Your task to perform on an android device: turn off data saver in the chrome app Image 0: 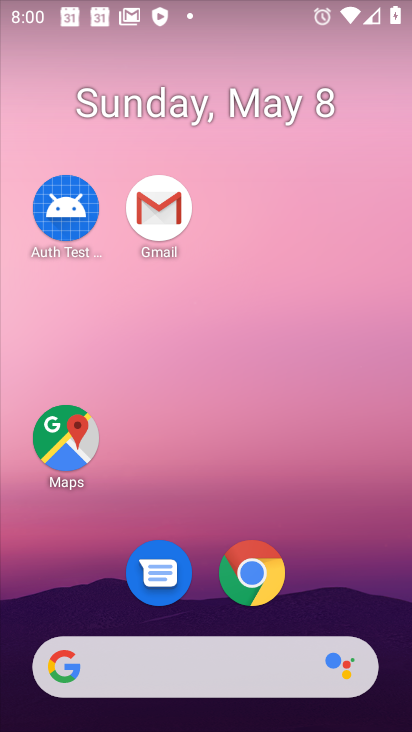
Step 0: drag from (338, 588) to (103, 42)
Your task to perform on an android device: turn off data saver in the chrome app Image 1: 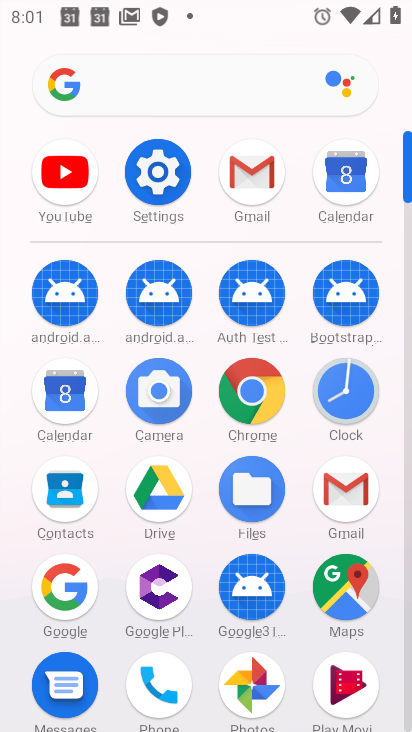
Step 1: click (238, 375)
Your task to perform on an android device: turn off data saver in the chrome app Image 2: 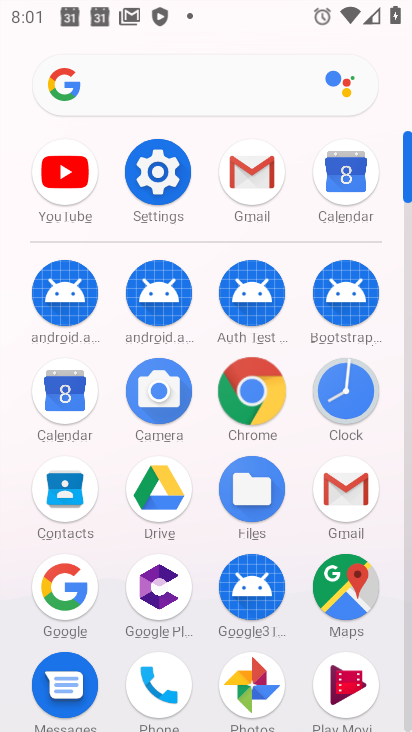
Step 2: click (239, 376)
Your task to perform on an android device: turn off data saver in the chrome app Image 3: 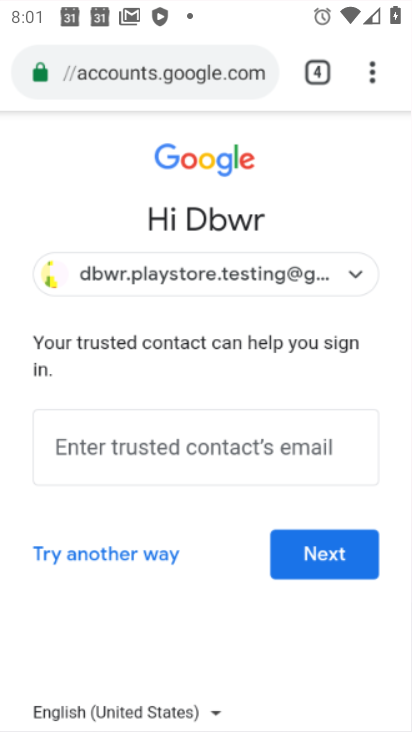
Step 3: click (241, 377)
Your task to perform on an android device: turn off data saver in the chrome app Image 4: 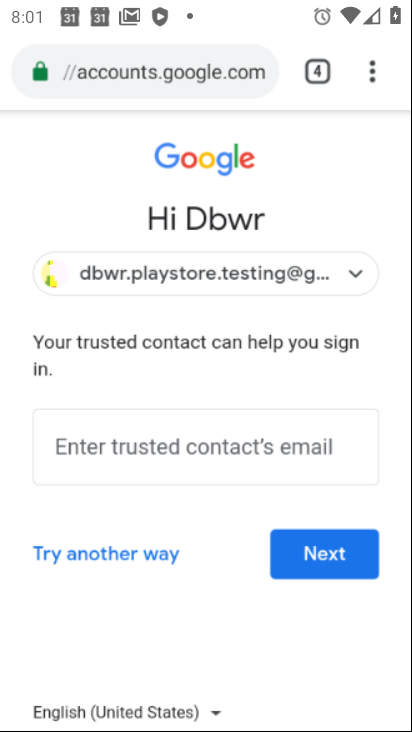
Step 4: click (241, 377)
Your task to perform on an android device: turn off data saver in the chrome app Image 5: 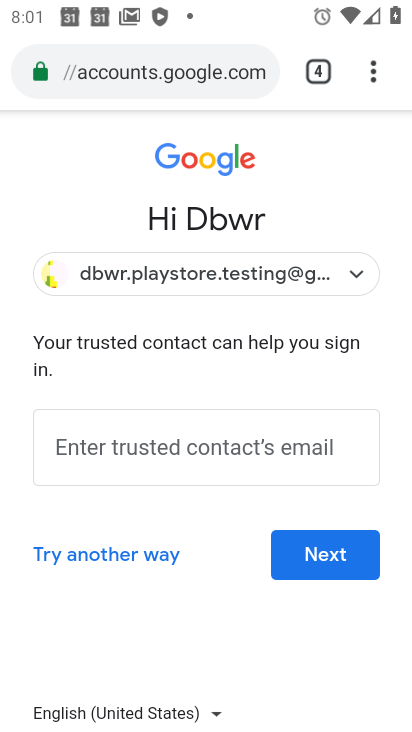
Step 5: click (320, 561)
Your task to perform on an android device: turn off data saver in the chrome app Image 6: 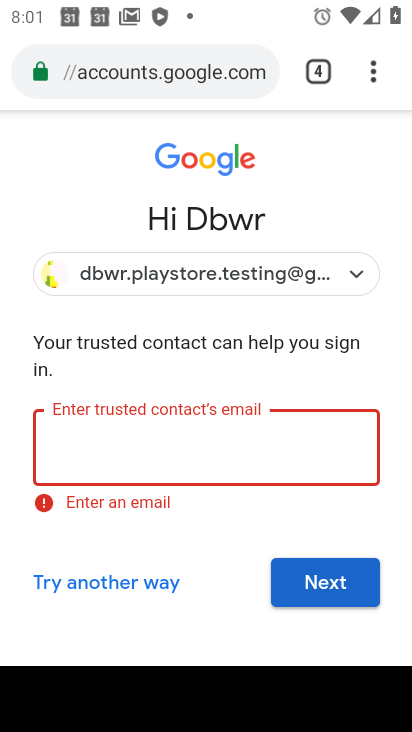
Step 6: press home button
Your task to perform on an android device: turn off data saver in the chrome app Image 7: 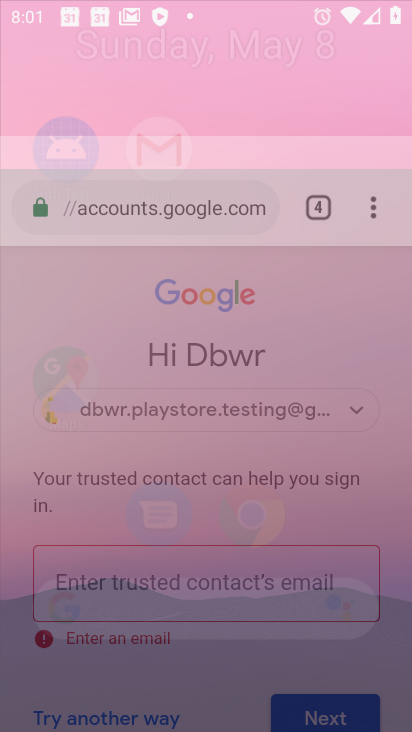
Step 7: press home button
Your task to perform on an android device: turn off data saver in the chrome app Image 8: 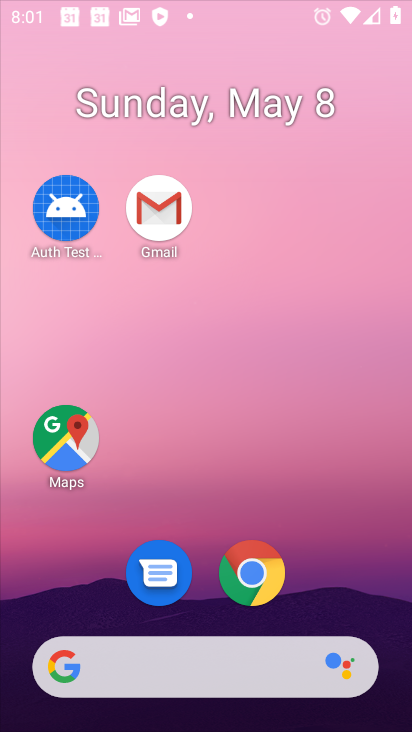
Step 8: press home button
Your task to perform on an android device: turn off data saver in the chrome app Image 9: 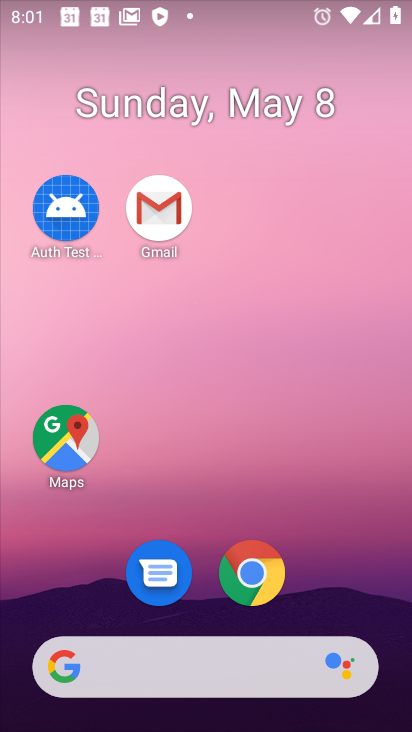
Step 9: click (259, 566)
Your task to perform on an android device: turn off data saver in the chrome app Image 10: 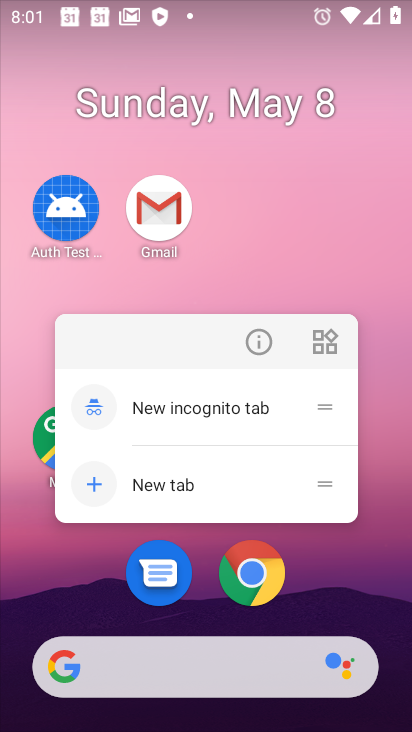
Step 10: click (189, 487)
Your task to perform on an android device: turn off data saver in the chrome app Image 11: 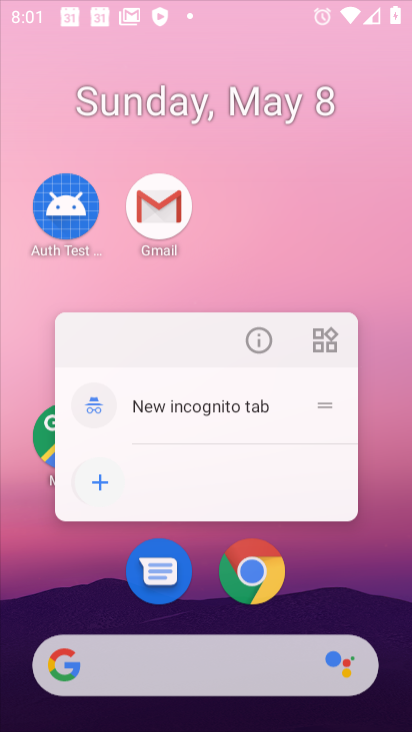
Step 11: click (188, 487)
Your task to perform on an android device: turn off data saver in the chrome app Image 12: 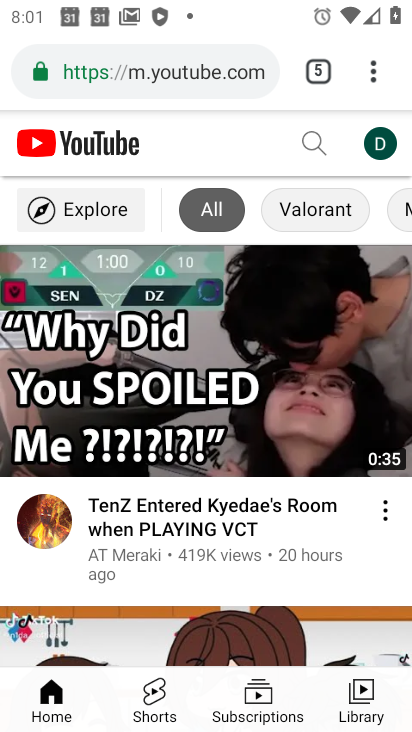
Step 12: press home button
Your task to perform on an android device: turn off data saver in the chrome app Image 13: 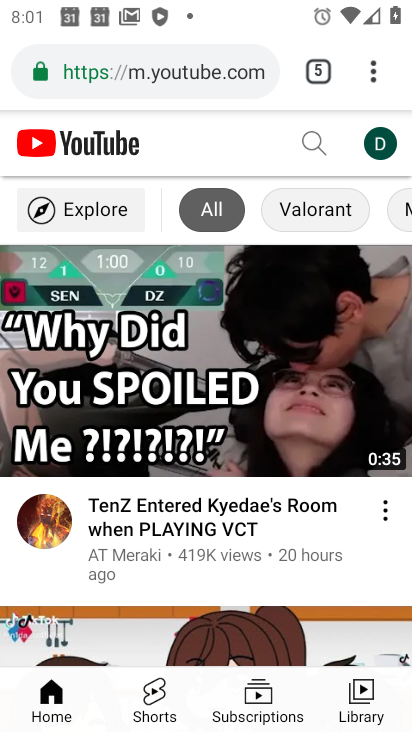
Step 13: press home button
Your task to perform on an android device: turn off data saver in the chrome app Image 14: 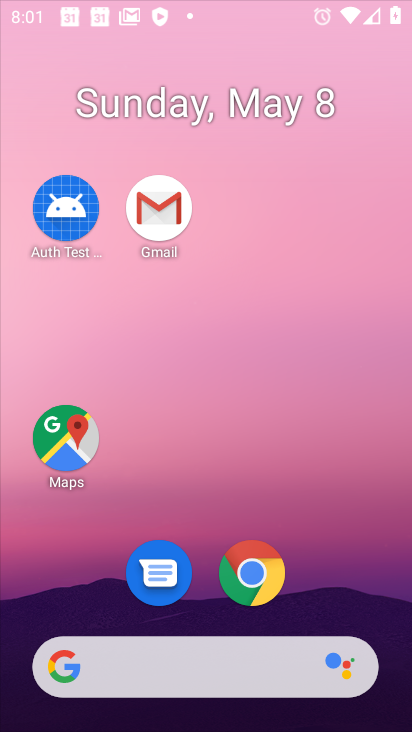
Step 14: press home button
Your task to perform on an android device: turn off data saver in the chrome app Image 15: 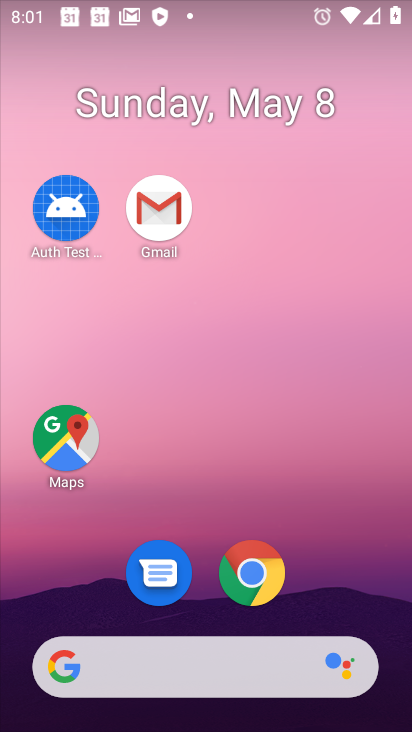
Step 15: drag from (378, 603) to (216, 56)
Your task to perform on an android device: turn off data saver in the chrome app Image 16: 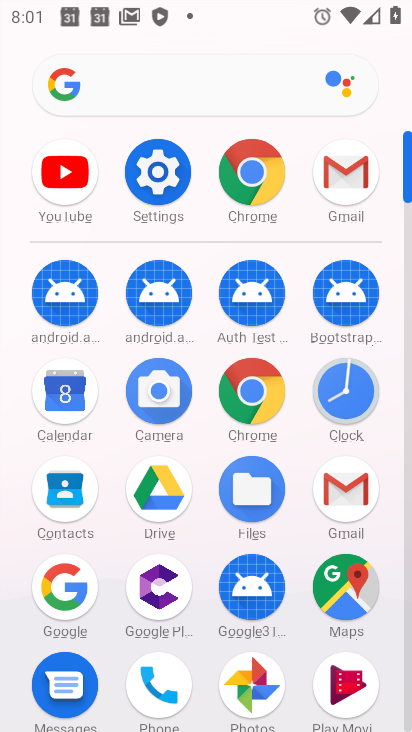
Step 16: click (255, 168)
Your task to perform on an android device: turn off data saver in the chrome app Image 17: 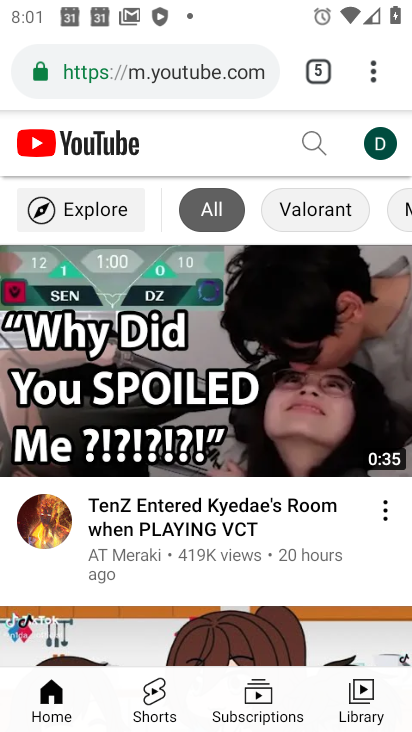
Step 17: click (362, 71)
Your task to perform on an android device: turn off data saver in the chrome app Image 18: 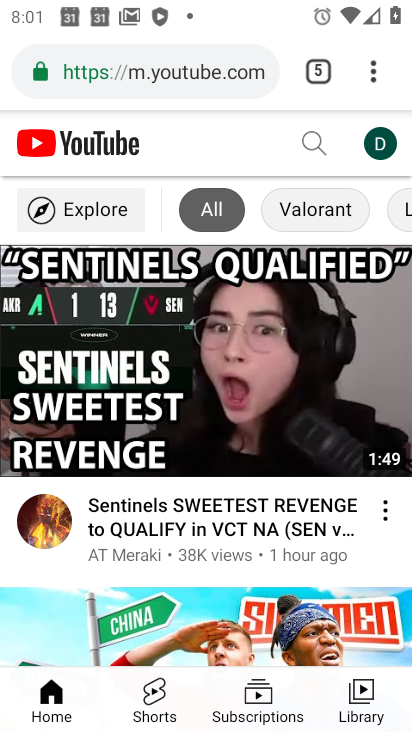
Step 18: drag from (366, 66) to (115, 564)
Your task to perform on an android device: turn off data saver in the chrome app Image 19: 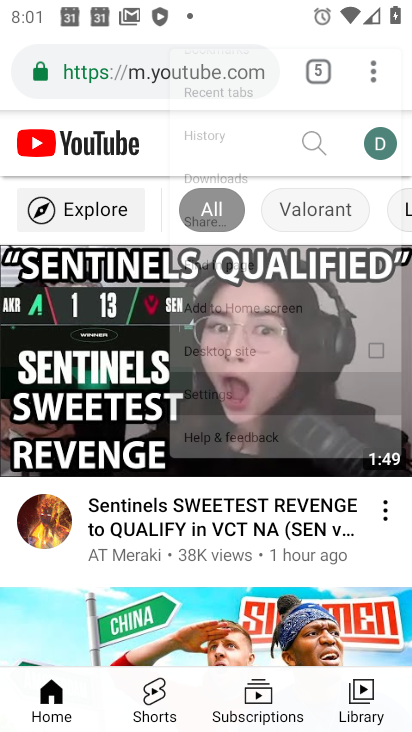
Step 19: click (115, 564)
Your task to perform on an android device: turn off data saver in the chrome app Image 20: 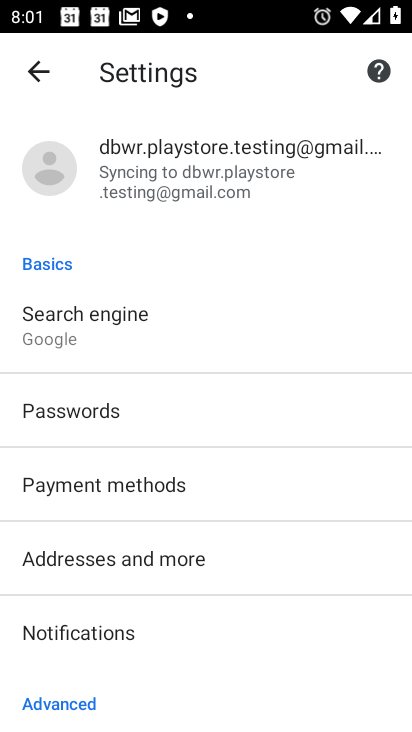
Step 20: drag from (193, 513) to (260, 112)
Your task to perform on an android device: turn off data saver in the chrome app Image 21: 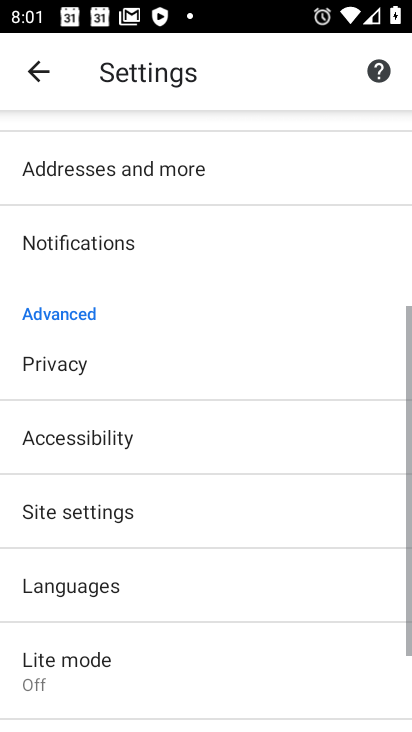
Step 21: drag from (185, 578) to (139, 229)
Your task to perform on an android device: turn off data saver in the chrome app Image 22: 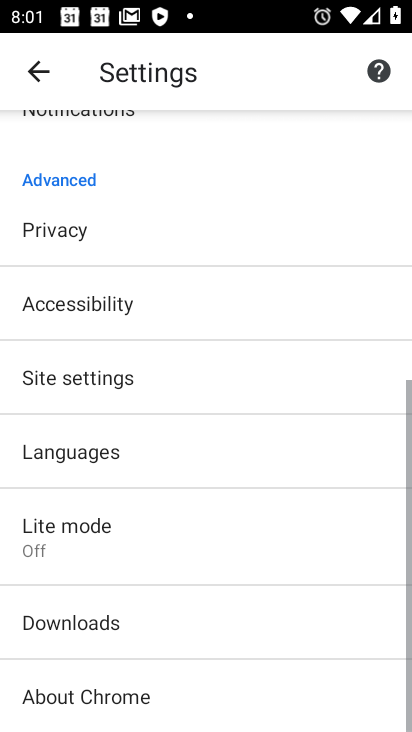
Step 22: drag from (144, 538) to (166, 219)
Your task to perform on an android device: turn off data saver in the chrome app Image 23: 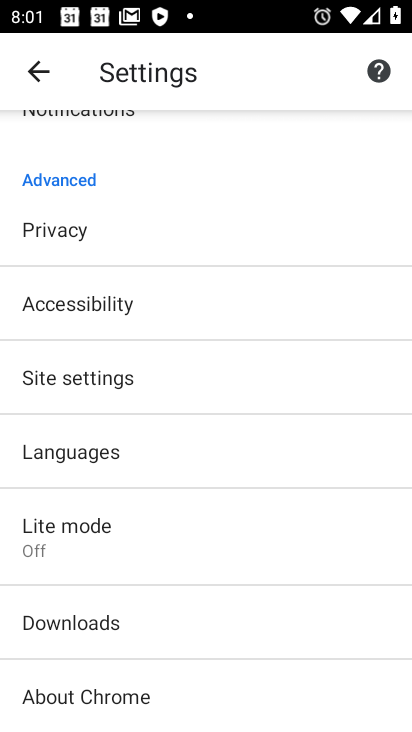
Step 23: click (64, 523)
Your task to perform on an android device: turn off data saver in the chrome app Image 24: 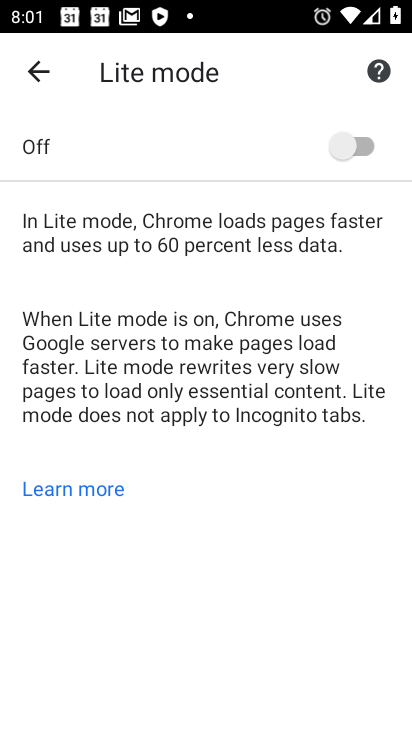
Step 24: task complete